Your task to perform on an android device: turn pop-ups on in chrome Image 0: 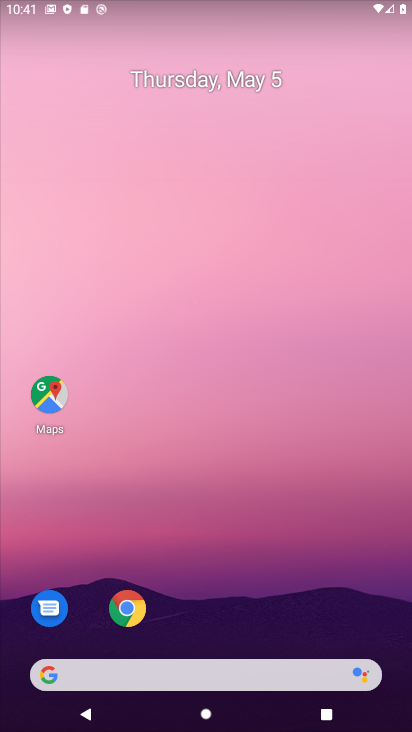
Step 0: click (133, 610)
Your task to perform on an android device: turn pop-ups on in chrome Image 1: 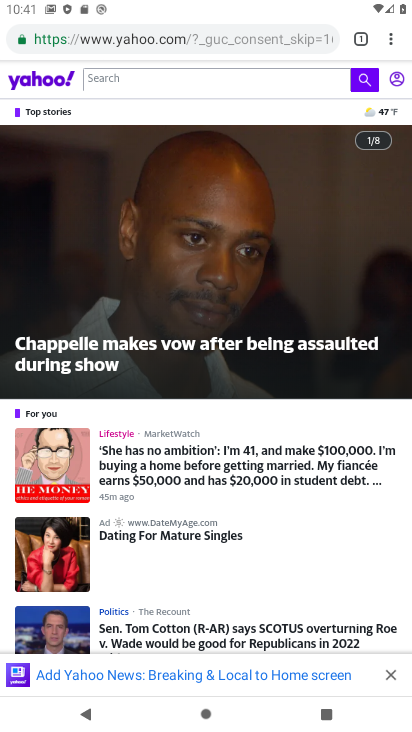
Step 1: click (387, 44)
Your task to perform on an android device: turn pop-ups on in chrome Image 2: 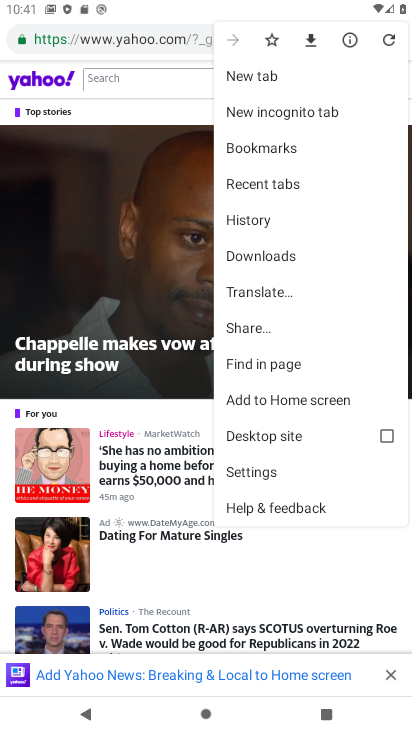
Step 2: click (265, 468)
Your task to perform on an android device: turn pop-ups on in chrome Image 3: 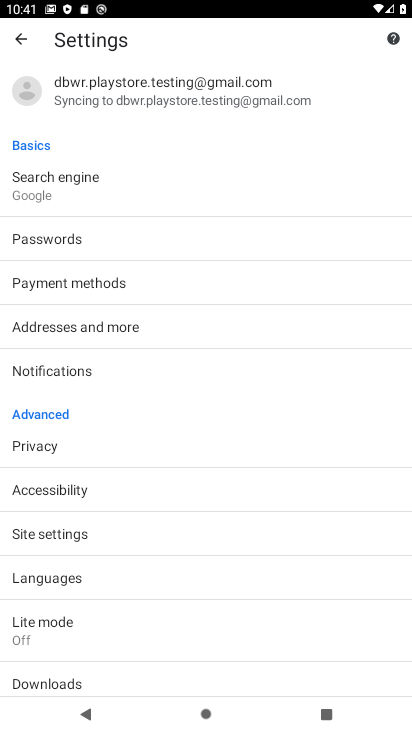
Step 3: click (57, 539)
Your task to perform on an android device: turn pop-ups on in chrome Image 4: 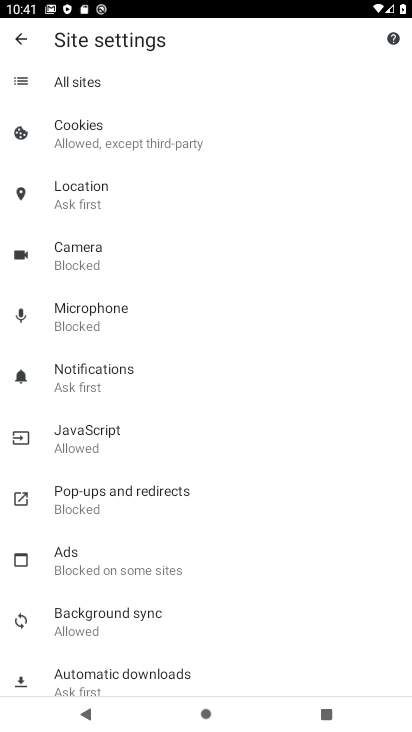
Step 4: click (104, 489)
Your task to perform on an android device: turn pop-ups on in chrome Image 5: 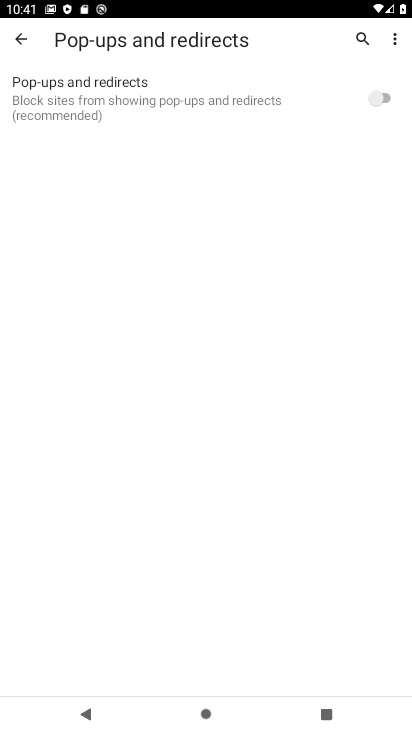
Step 5: click (376, 108)
Your task to perform on an android device: turn pop-ups on in chrome Image 6: 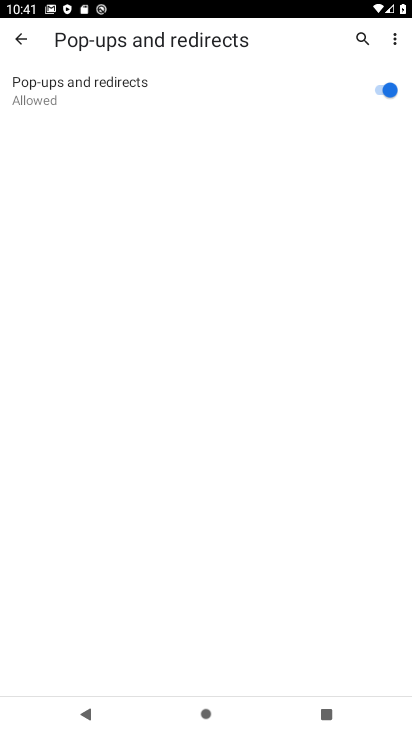
Step 6: task complete